Your task to perform on an android device: remove spam from my inbox in the gmail app Image 0: 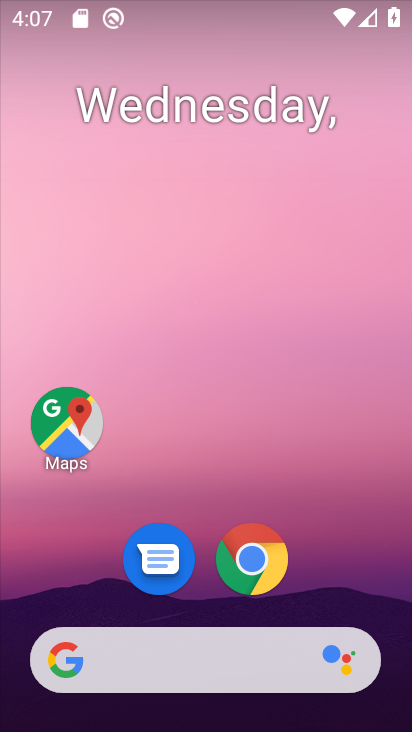
Step 0: drag from (359, 574) to (189, 127)
Your task to perform on an android device: remove spam from my inbox in the gmail app Image 1: 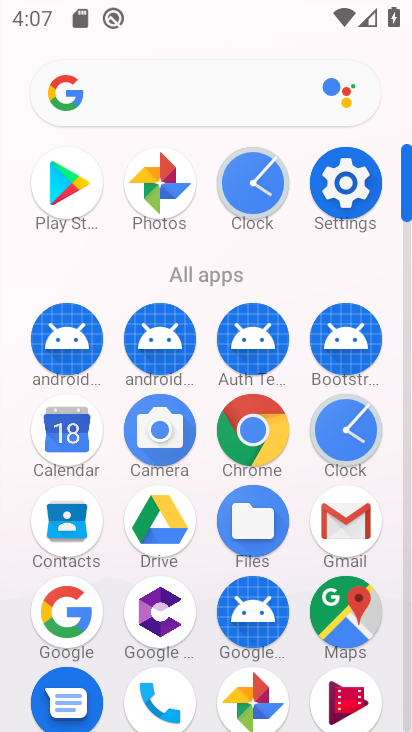
Step 1: click (360, 531)
Your task to perform on an android device: remove spam from my inbox in the gmail app Image 2: 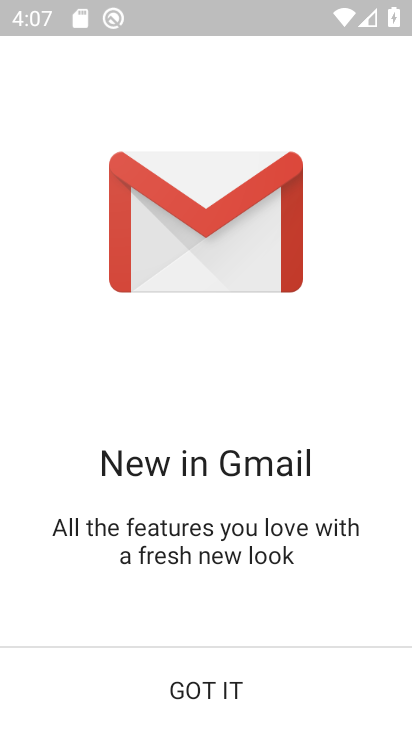
Step 2: click (265, 694)
Your task to perform on an android device: remove spam from my inbox in the gmail app Image 3: 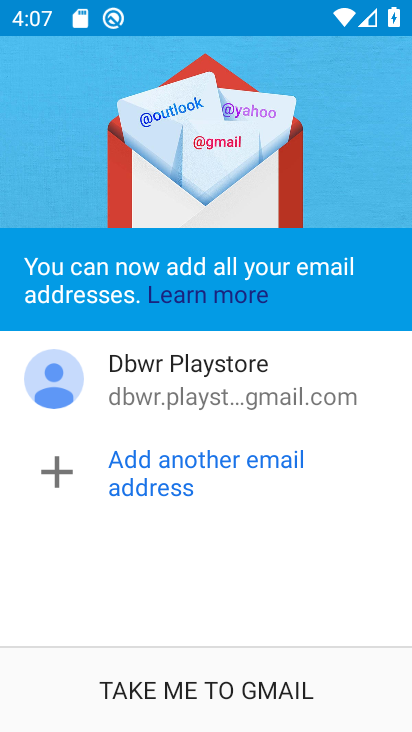
Step 3: click (252, 670)
Your task to perform on an android device: remove spam from my inbox in the gmail app Image 4: 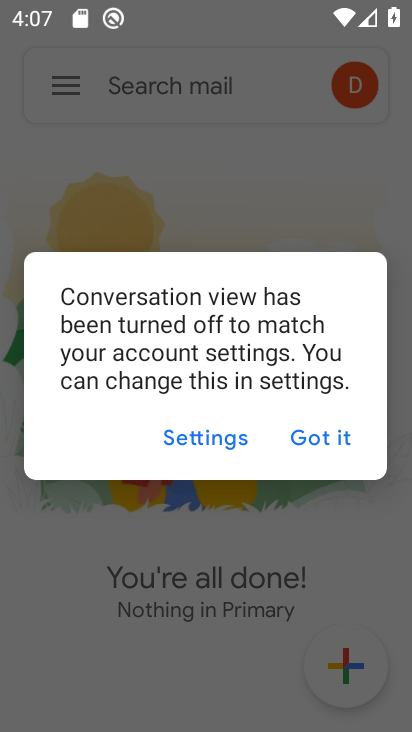
Step 4: click (318, 435)
Your task to perform on an android device: remove spam from my inbox in the gmail app Image 5: 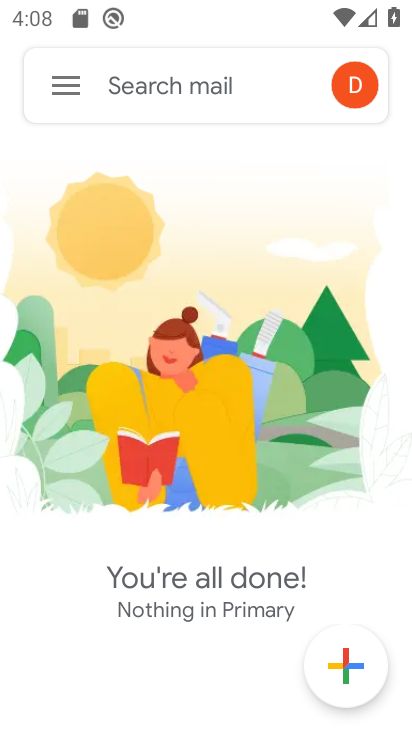
Step 5: click (61, 87)
Your task to perform on an android device: remove spam from my inbox in the gmail app Image 6: 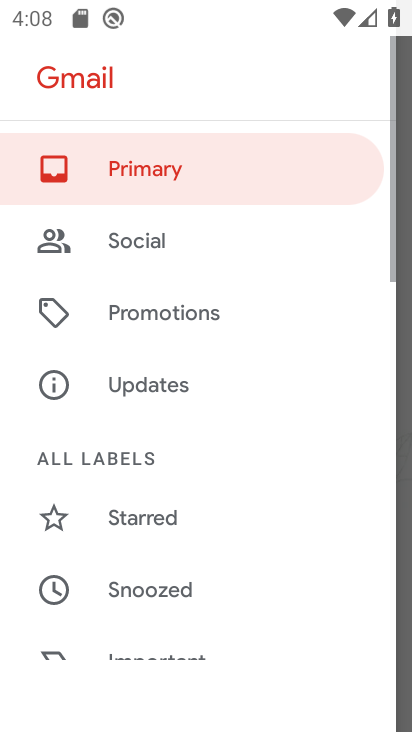
Step 6: drag from (254, 597) to (207, 151)
Your task to perform on an android device: remove spam from my inbox in the gmail app Image 7: 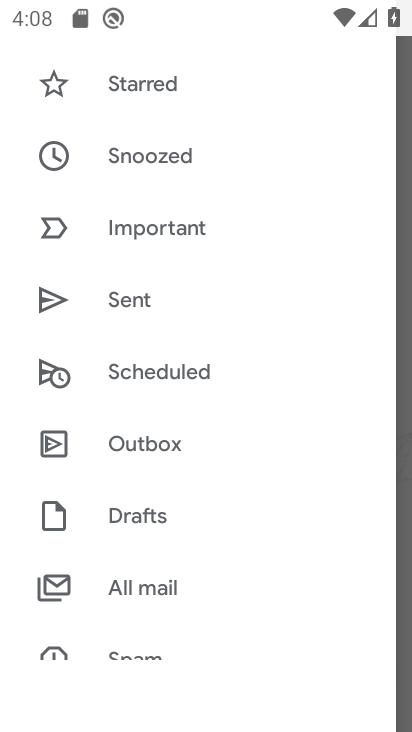
Step 7: drag from (192, 603) to (179, 392)
Your task to perform on an android device: remove spam from my inbox in the gmail app Image 8: 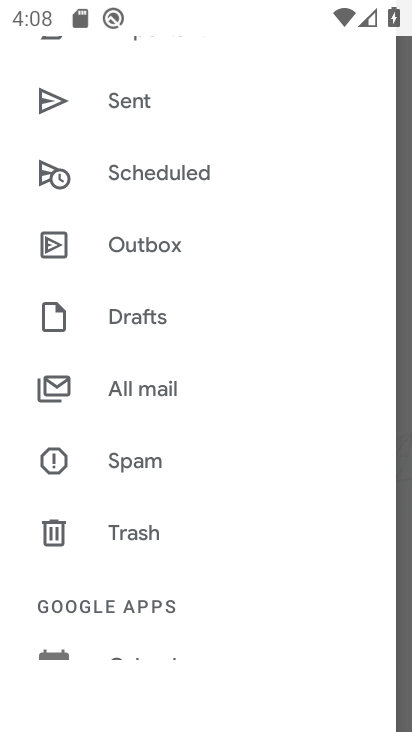
Step 8: click (157, 467)
Your task to perform on an android device: remove spam from my inbox in the gmail app Image 9: 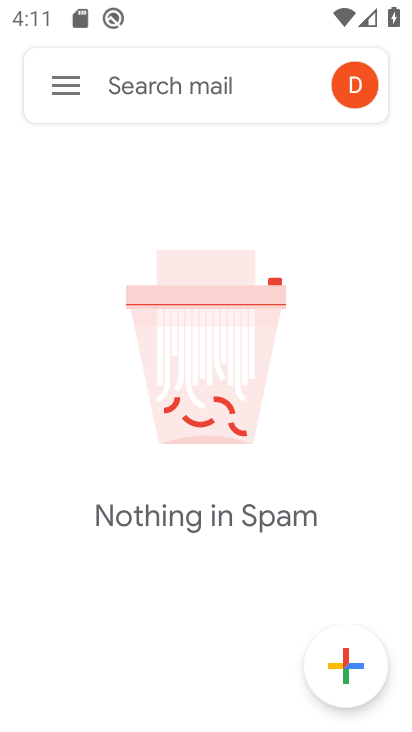
Step 9: task complete